Your task to perform on an android device: turn on improve location accuracy Image 0: 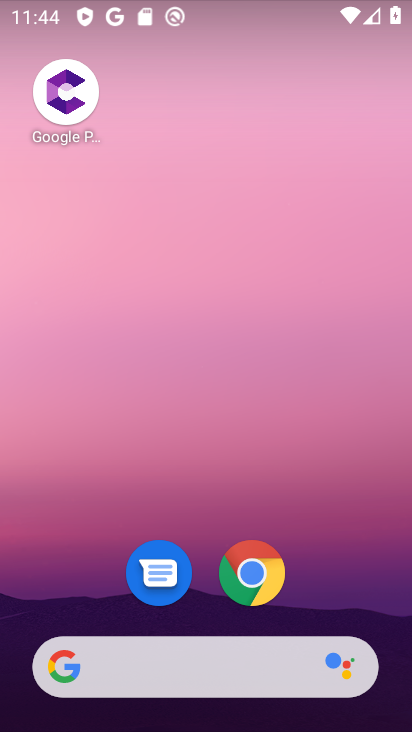
Step 0: drag from (394, 633) to (277, 94)
Your task to perform on an android device: turn on improve location accuracy Image 1: 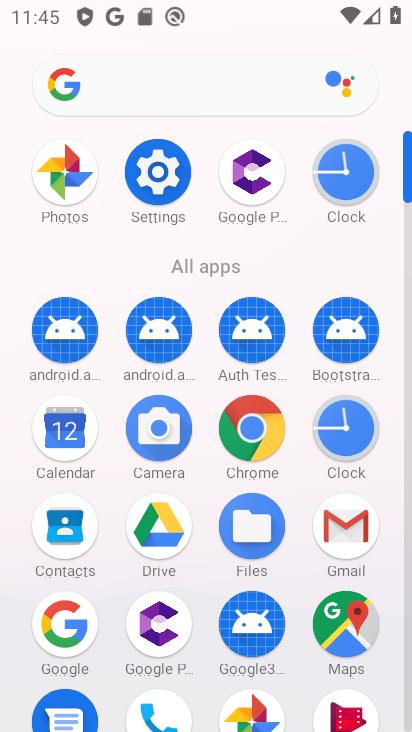
Step 1: click (147, 180)
Your task to perform on an android device: turn on improve location accuracy Image 2: 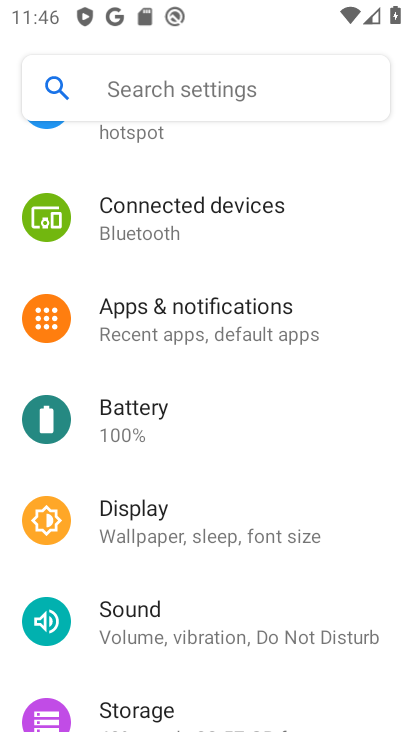
Step 2: drag from (209, 633) to (225, 257)
Your task to perform on an android device: turn on improve location accuracy Image 3: 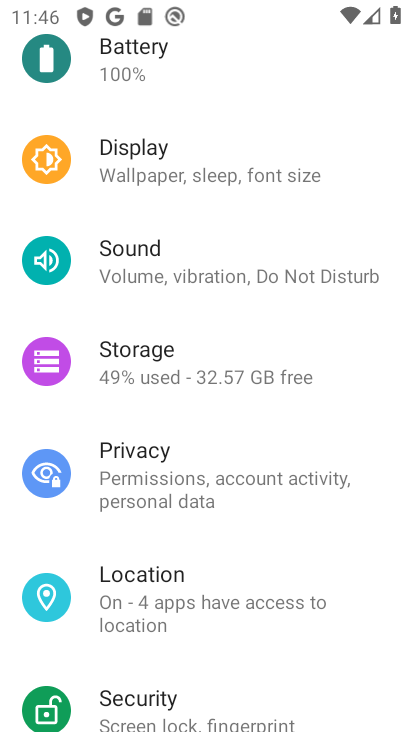
Step 3: click (193, 606)
Your task to perform on an android device: turn on improve location accuracy Image 4: 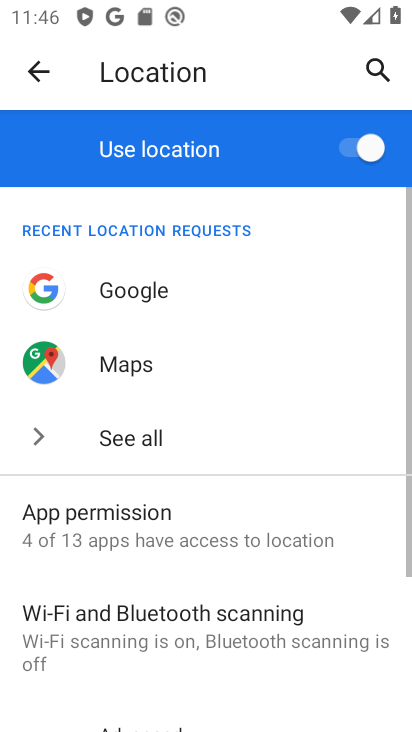
Step 4: drag from (172, 644) to (206, 369)
Your task to perform on an android device: turn on improve location accuracy Image 5: 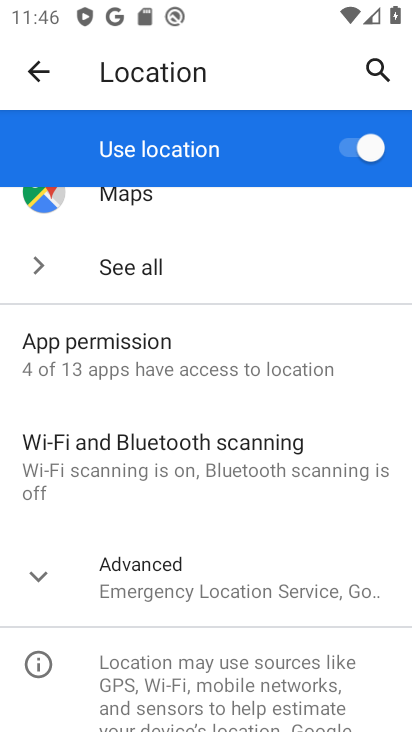
Step 5: click (192, 678)
Your task to perform on an android device: turn on improve location accuracy Image 6: 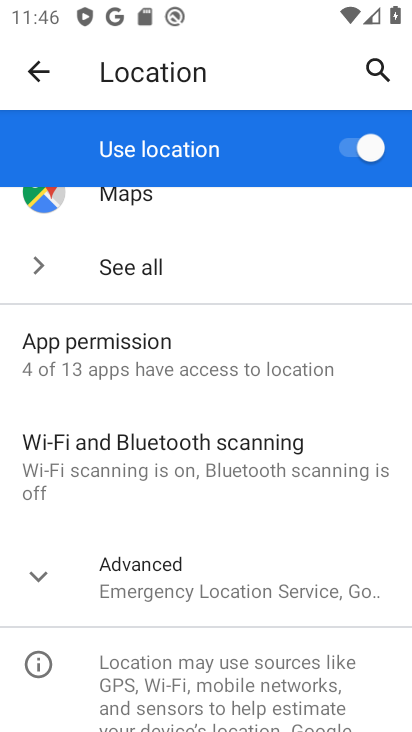
Step 6: click (200, 566)
Your task to perform on an android device: turn on improve location accuracy Image 7: 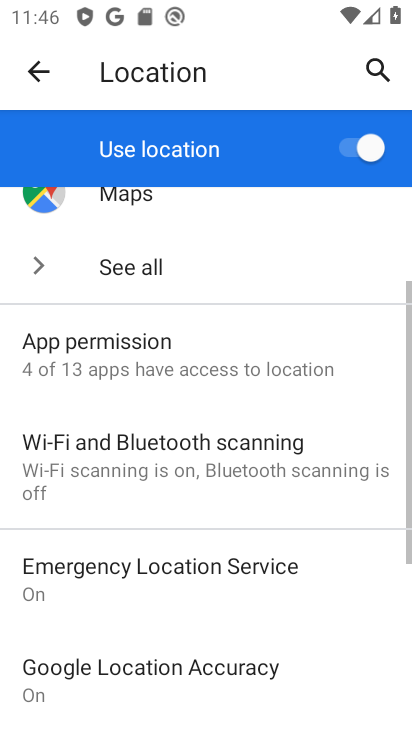
Step 7: click (228, 662)
Your task to perform on an android device: turn on improve location accuracy Image 8: 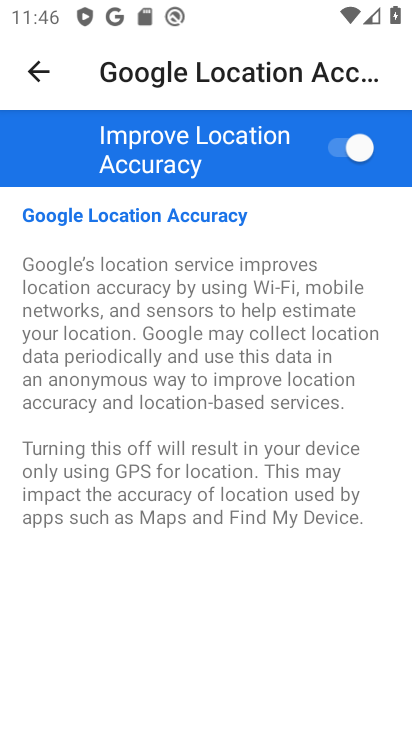
Step 8: task complete